Your task to perform on an android device: Search for Mexican restaurants on Maps Image 0: 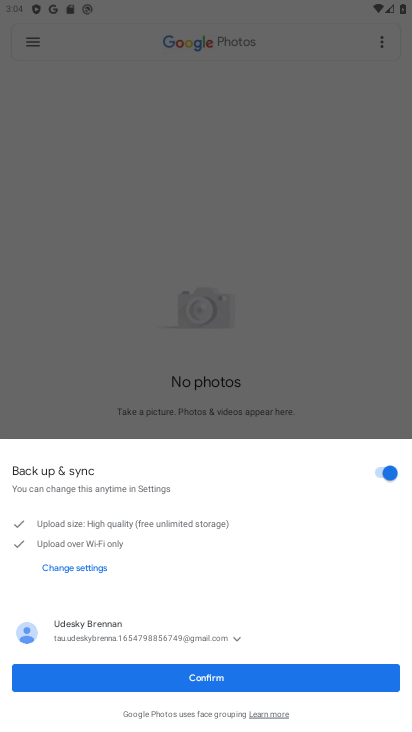
Step 0: press home button
Your task to perform on an android device: Search for Mexican restaurants on Maps Image 1: 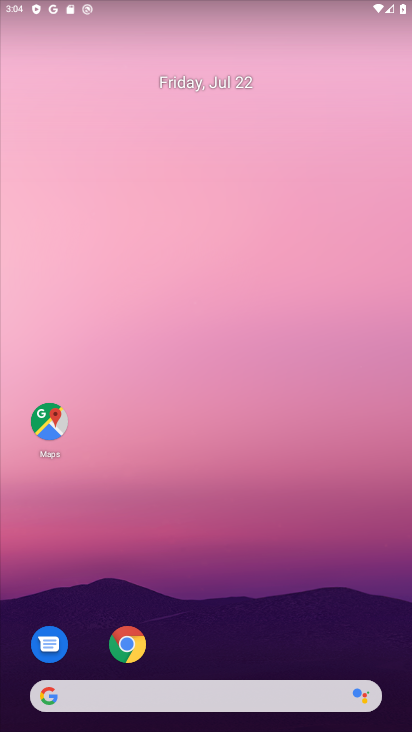
Step 1: click (54, 418)
Your task to perform on an android device: Search for Mexican restaurants on Maps Image 2: 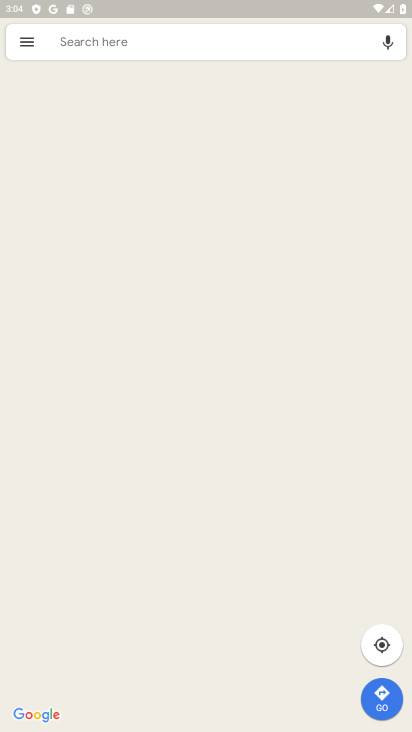
Step 2: click (238, 48)
Your task to perform on an android device: Search for Mexican restaurants on Maps Image 3: 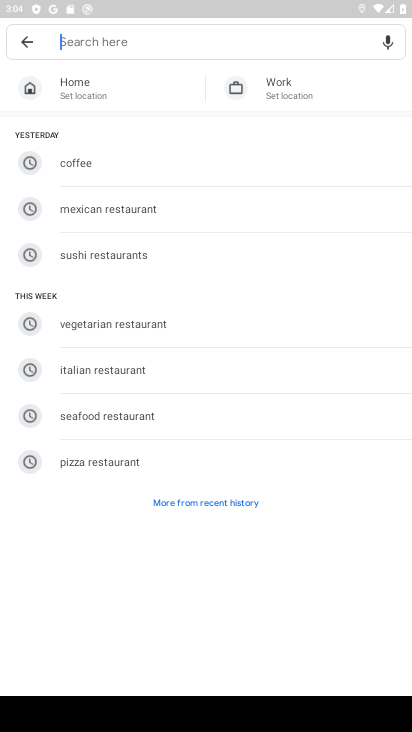
Step 3: type " Mexican restaurants "
Your task to perform on an android device: Search for Mexican restaurants on Maps Image 4: 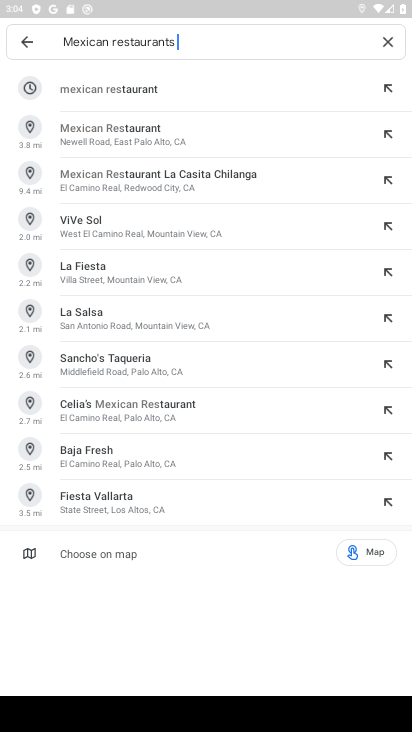
Step 4: press enter
Your task to perform on an android device: Search for Mexican restaurants on Maps Image 5: 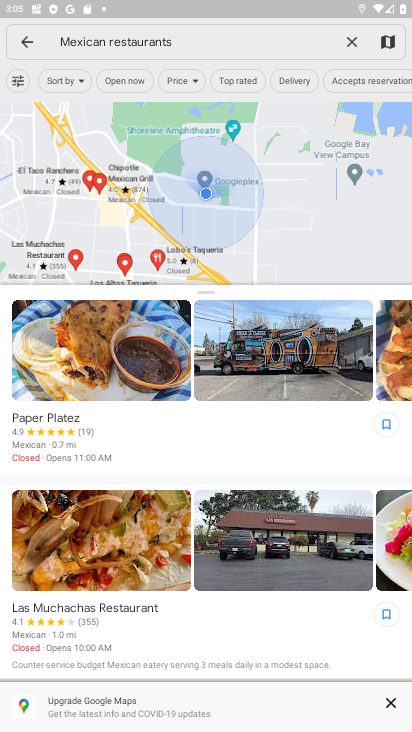
Step 5: task complete